Your task to perform on an android device: What's the weather going to be this weekend? Image 0: 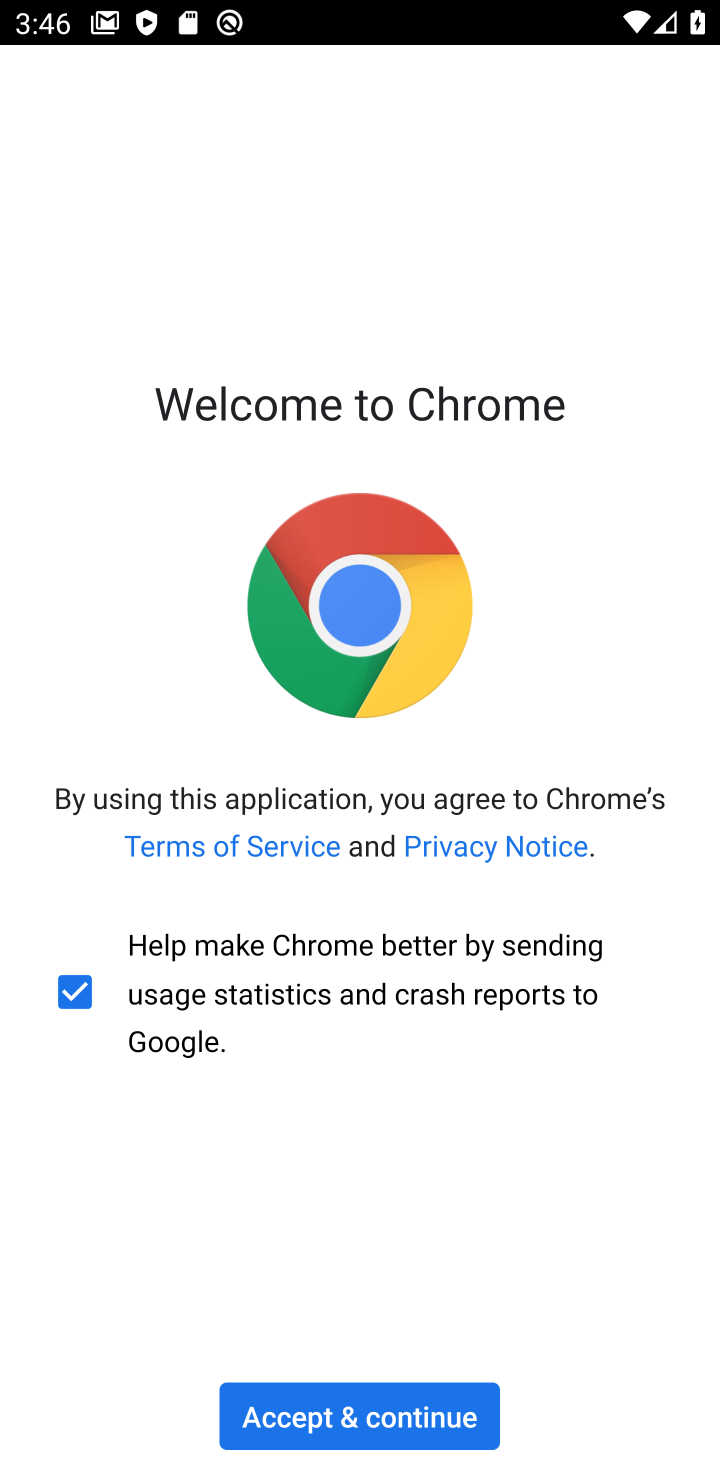
Step 0: press home button
Your task to perform on an android device: What's the weather going to be this weekend? Image 1: 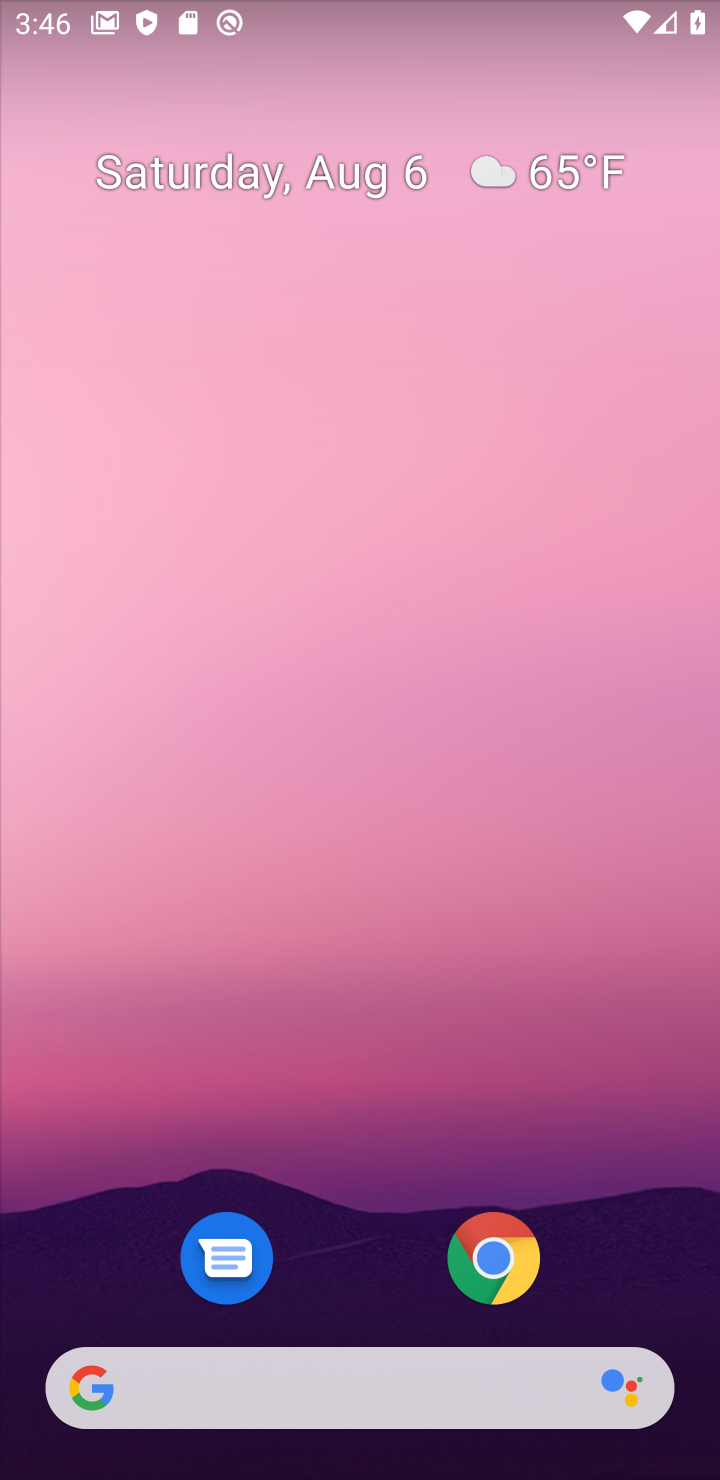
Step 1: drag from (365, 1209) to (497, 54)
Your task to perform on an android device: What's the weather going to be this weekend? Image 2: 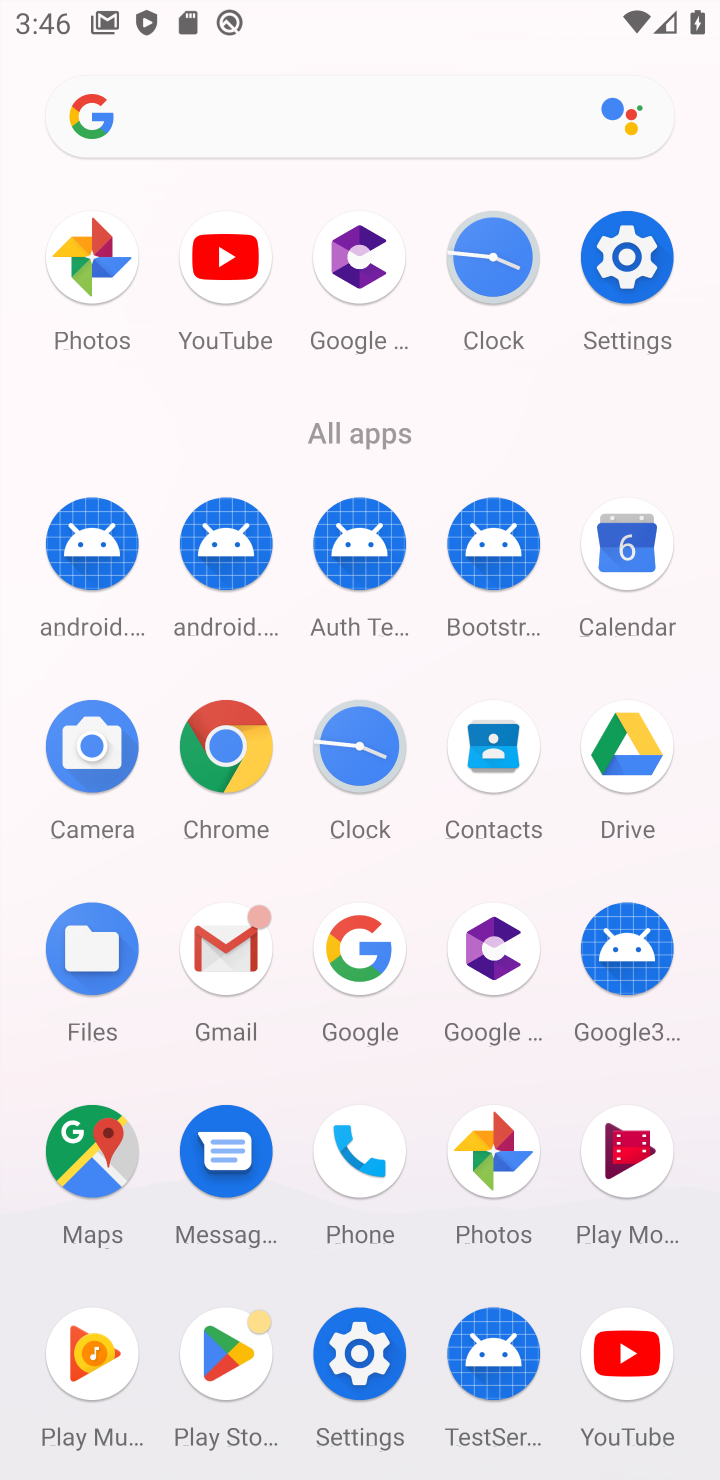
Step 2: click (273, 116)
Your task to perform on an android device: What's the weather going to be this weekend? Image 3: 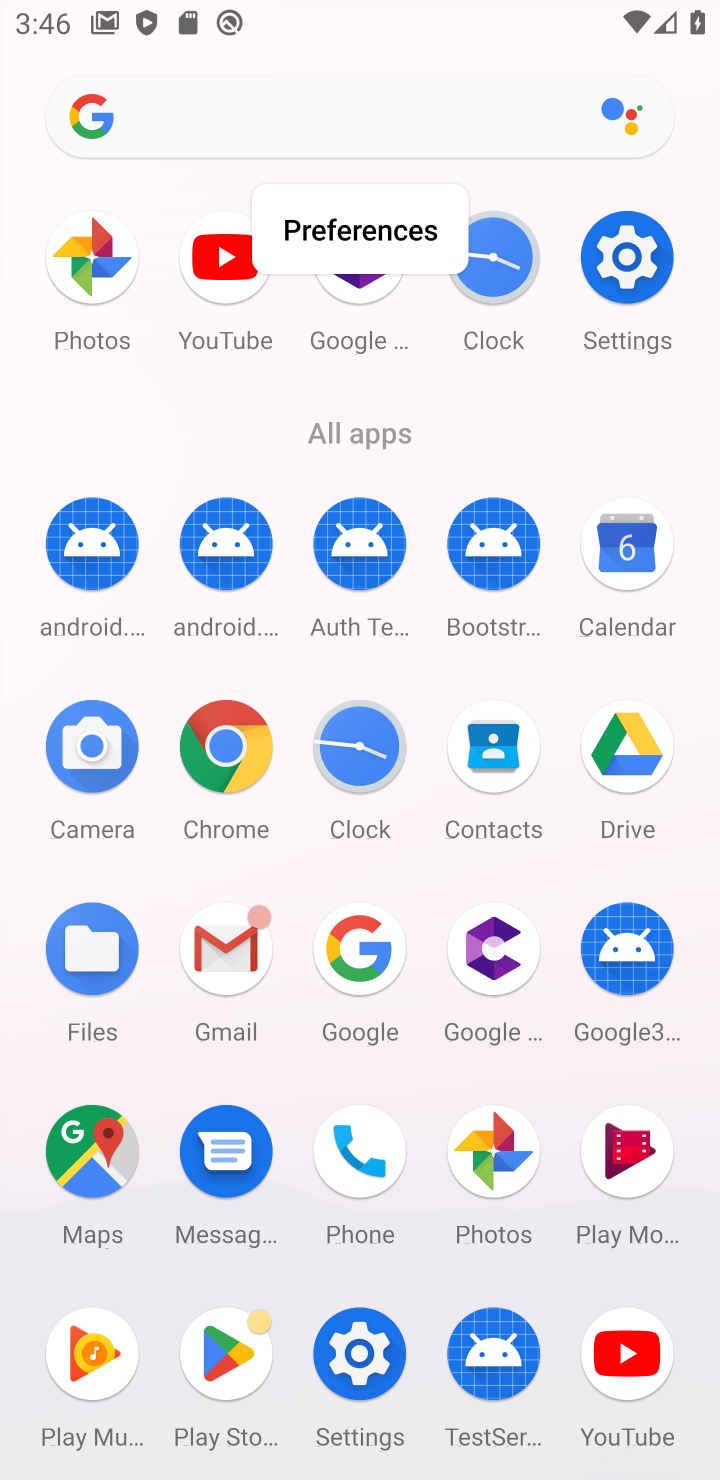
Step 3: click (272, 123)
Your task to perform on an android device: What's the weather going to be this weekend? Image 4: 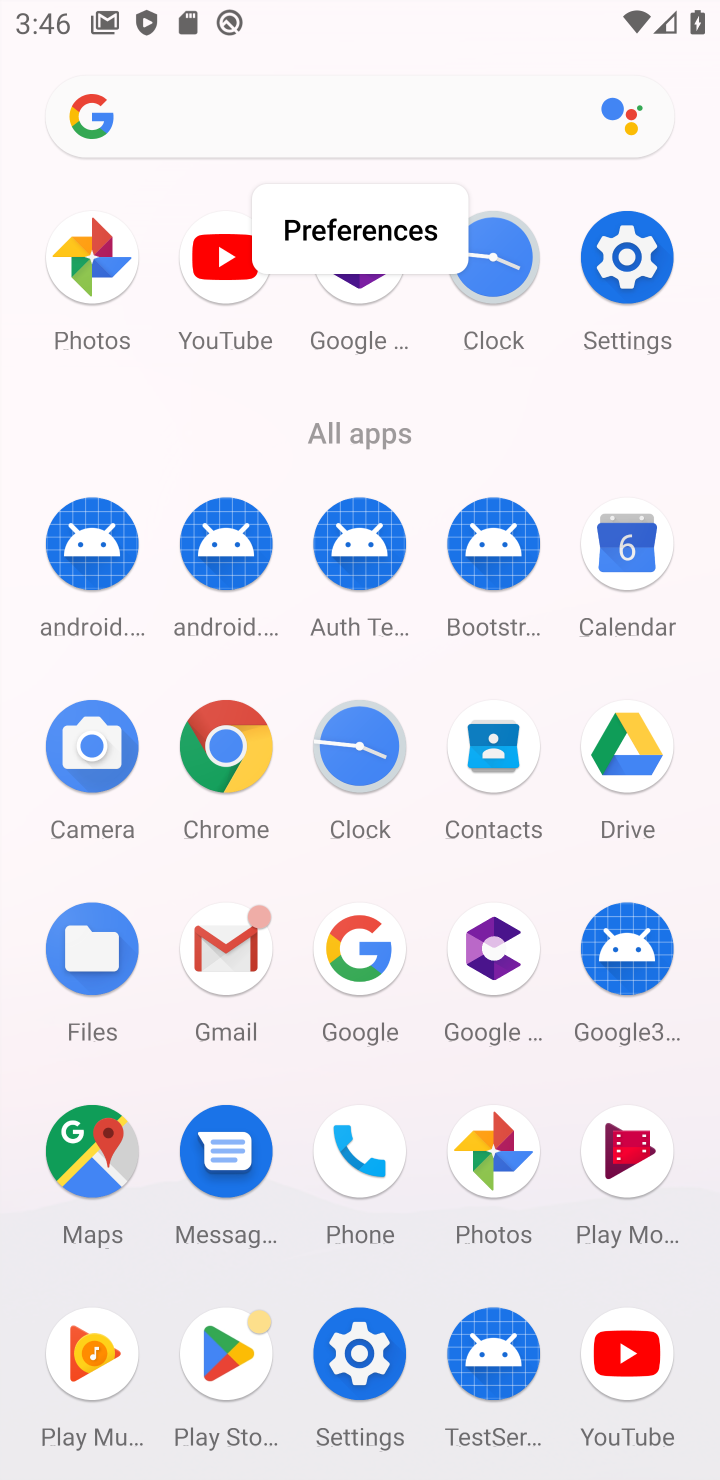
Step 4: click (217, 121)
Your task to perform on an android device: What's the weather going to be this weekend? Image 5: 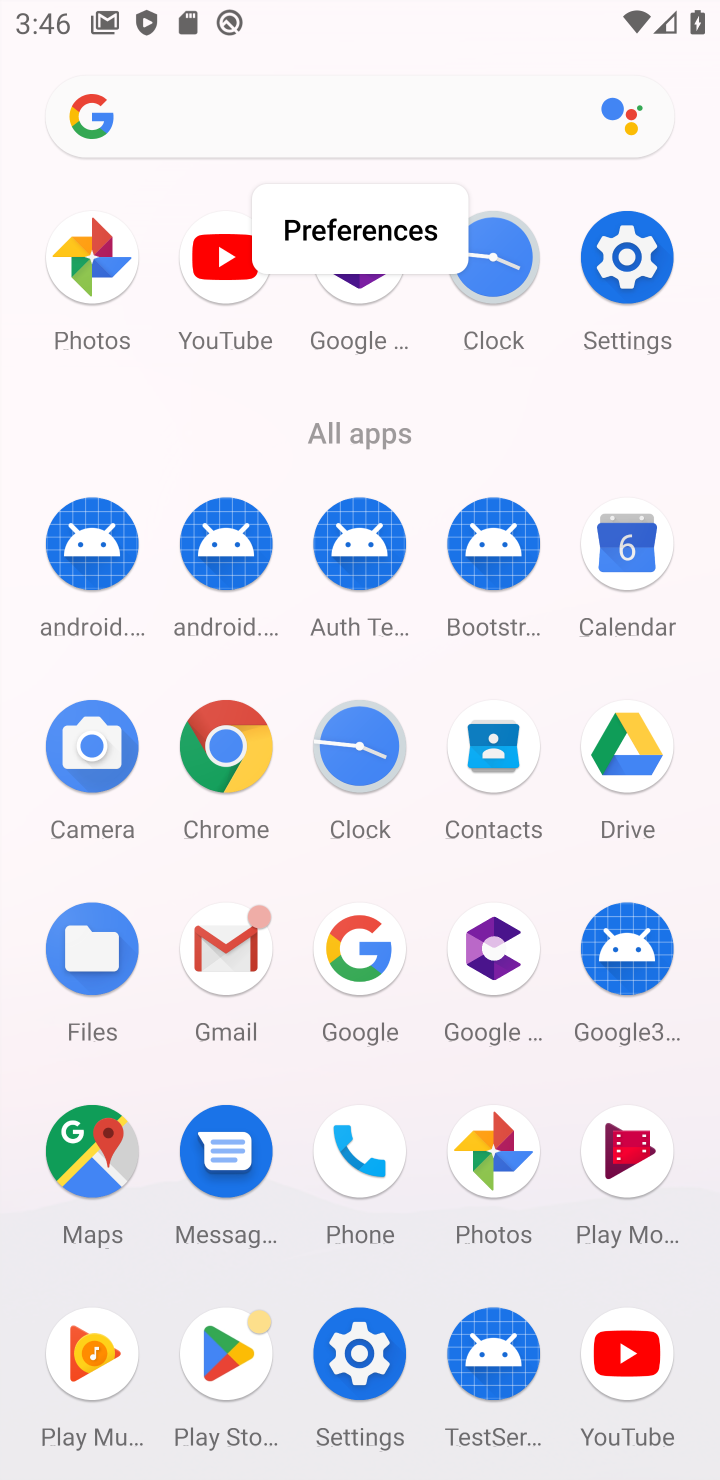
Step 5: click (215, 123)
Your task to perform on an android device: What's the weather going to be this weekend? Image 6: 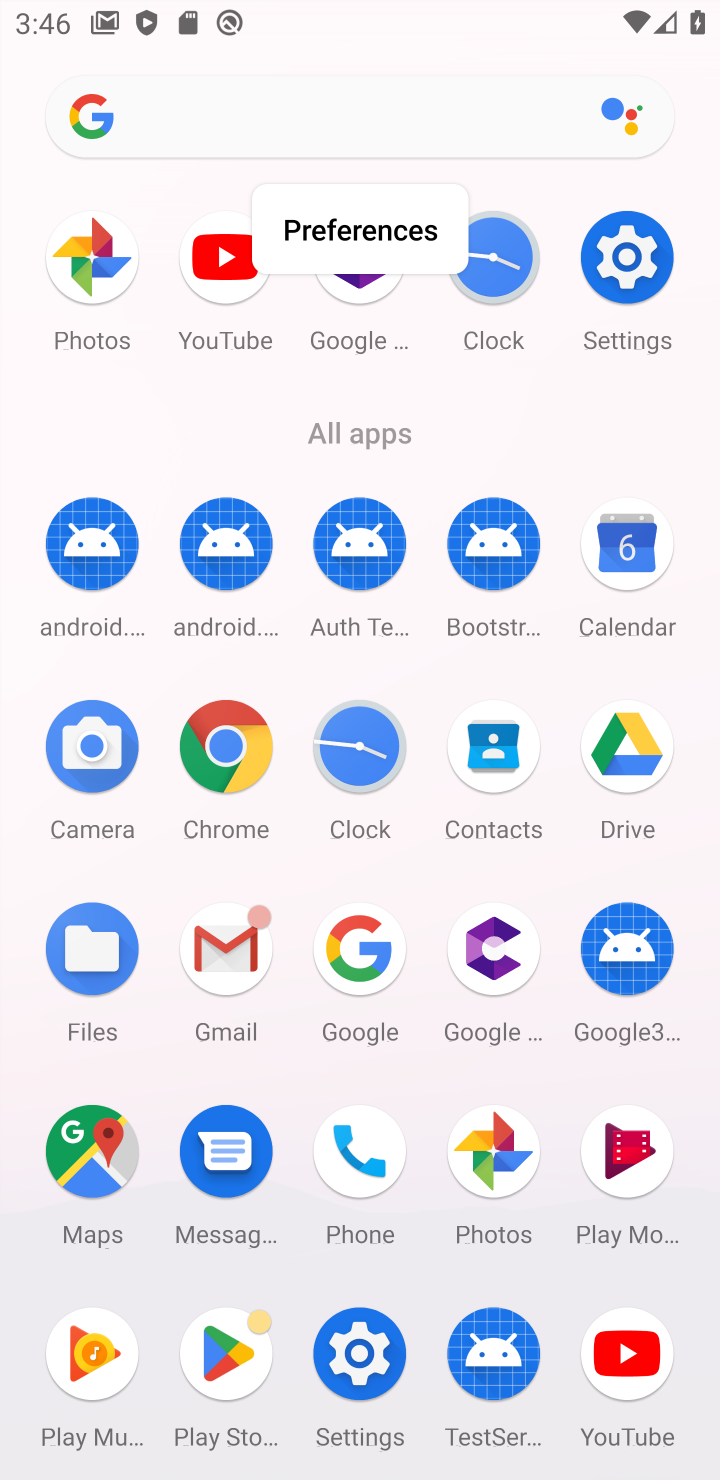
Step 6: click (370, 116)
Your task to perform on an android device: What's the weather going to be this weekend? Image 7: 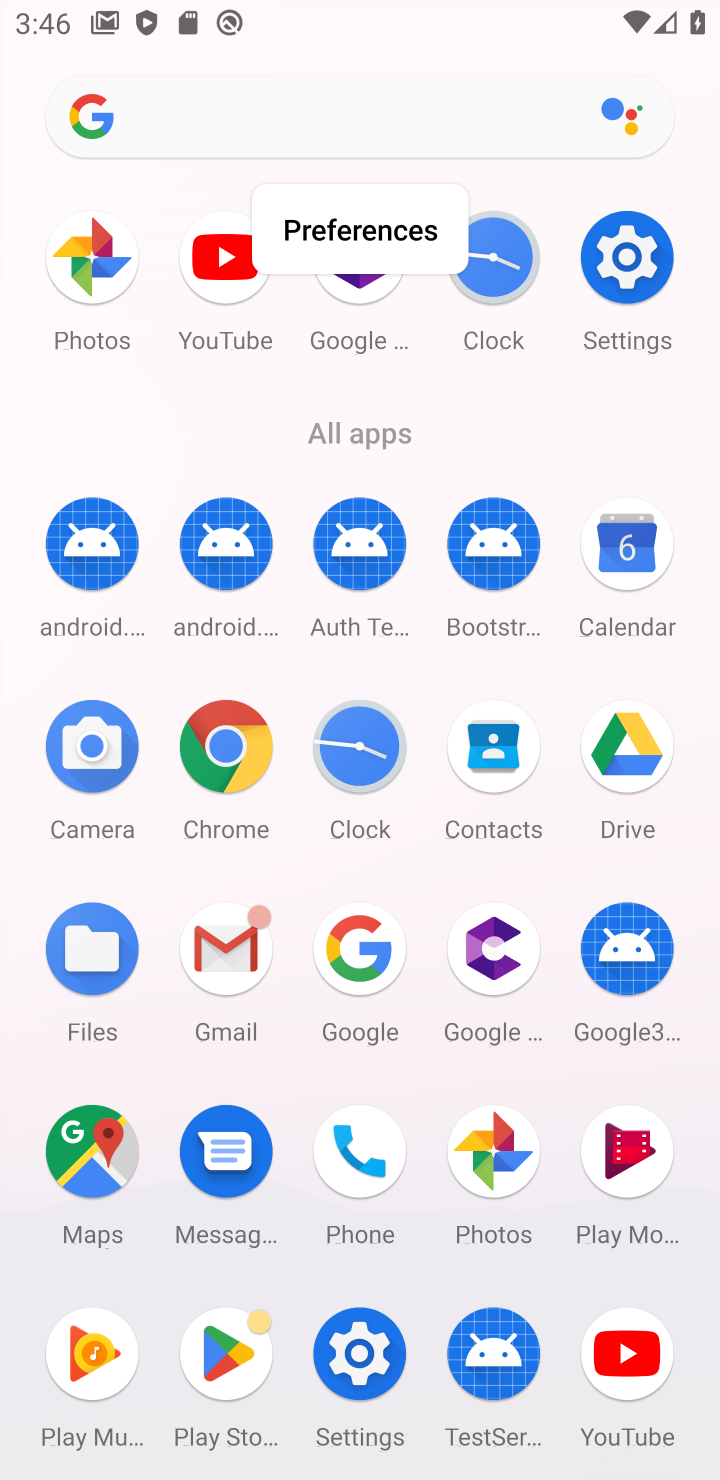
Step 7: click (222, 111)
Your task to perform on an android device: What's the weather going to be this weekend? Image 8: 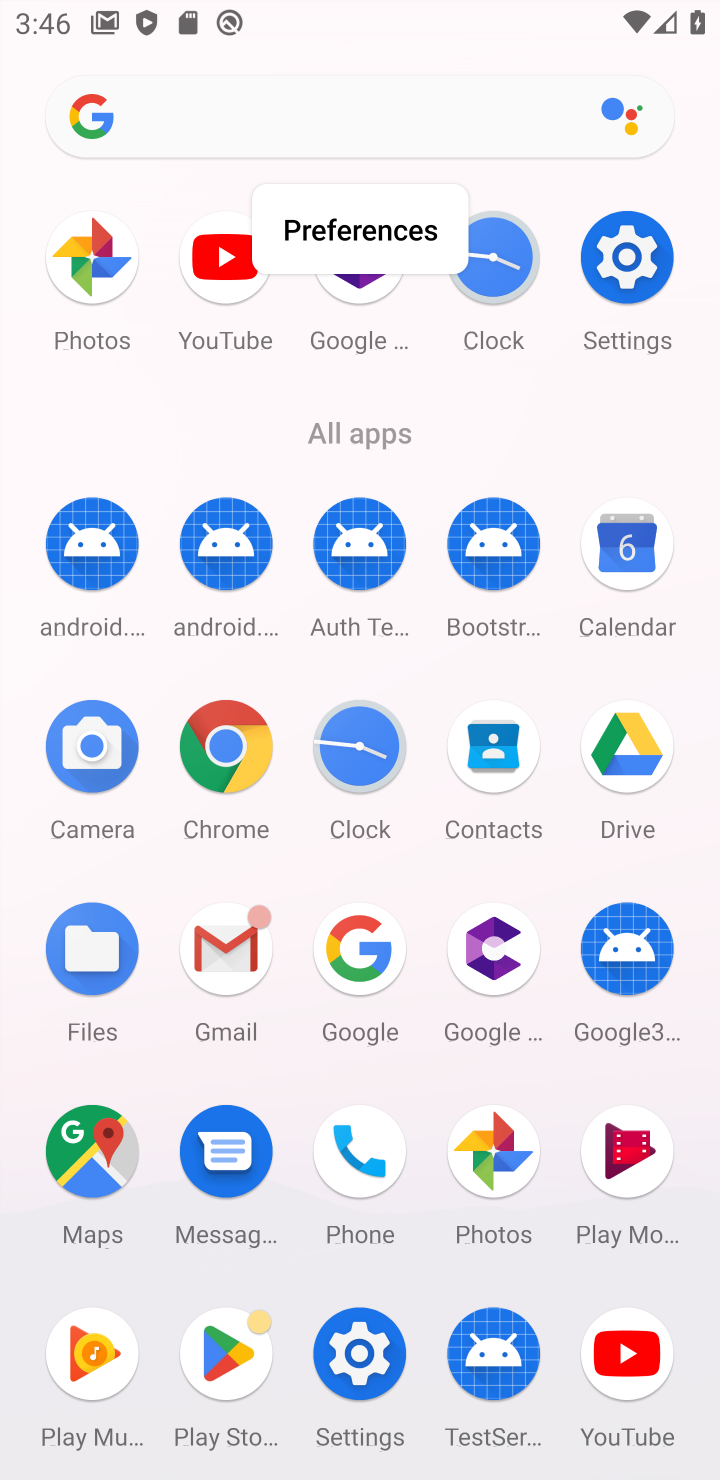
Step 8: click (224, 111)
Your task to perform on an android device: What's the weather going to be this weekend? Image 9: 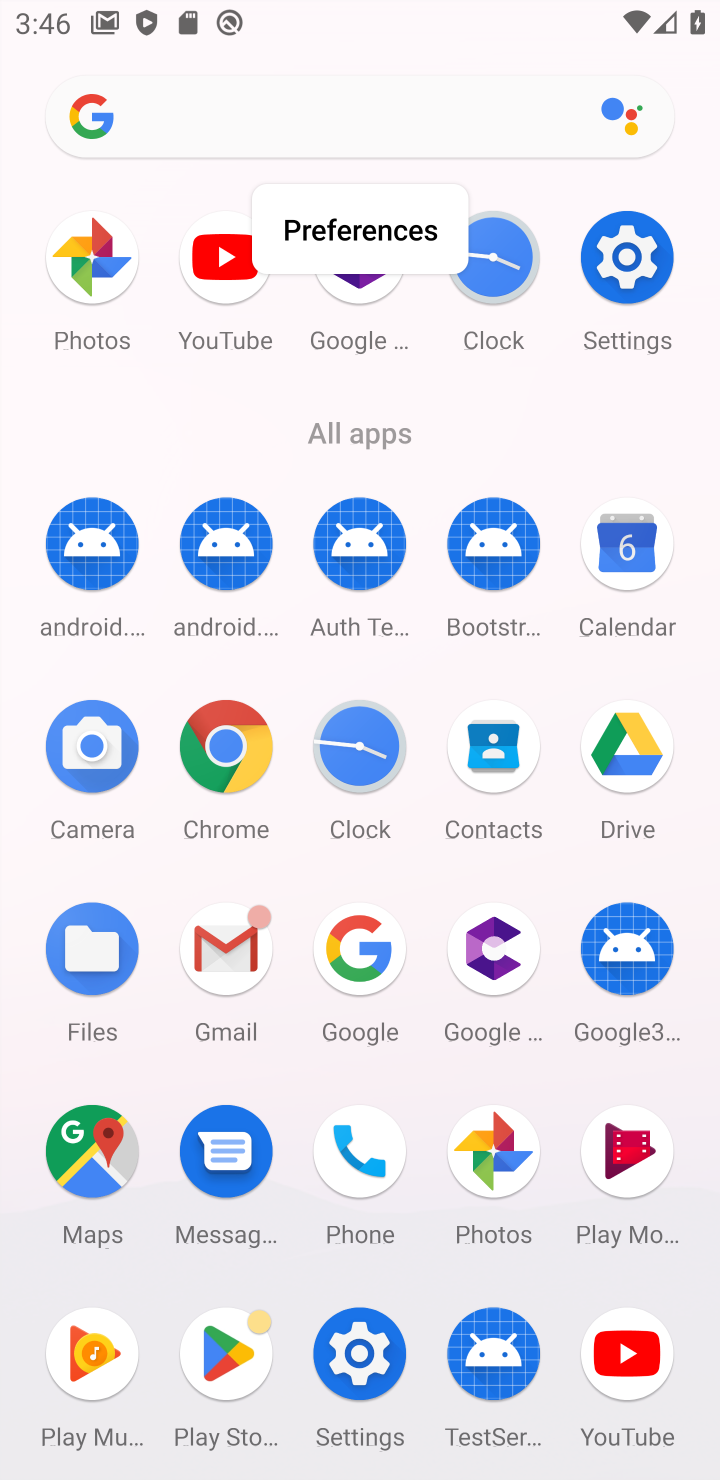
Step 9: click (224, 111)
Your task to perform on an android device: What's the weather going to be this weekend? Image 10: 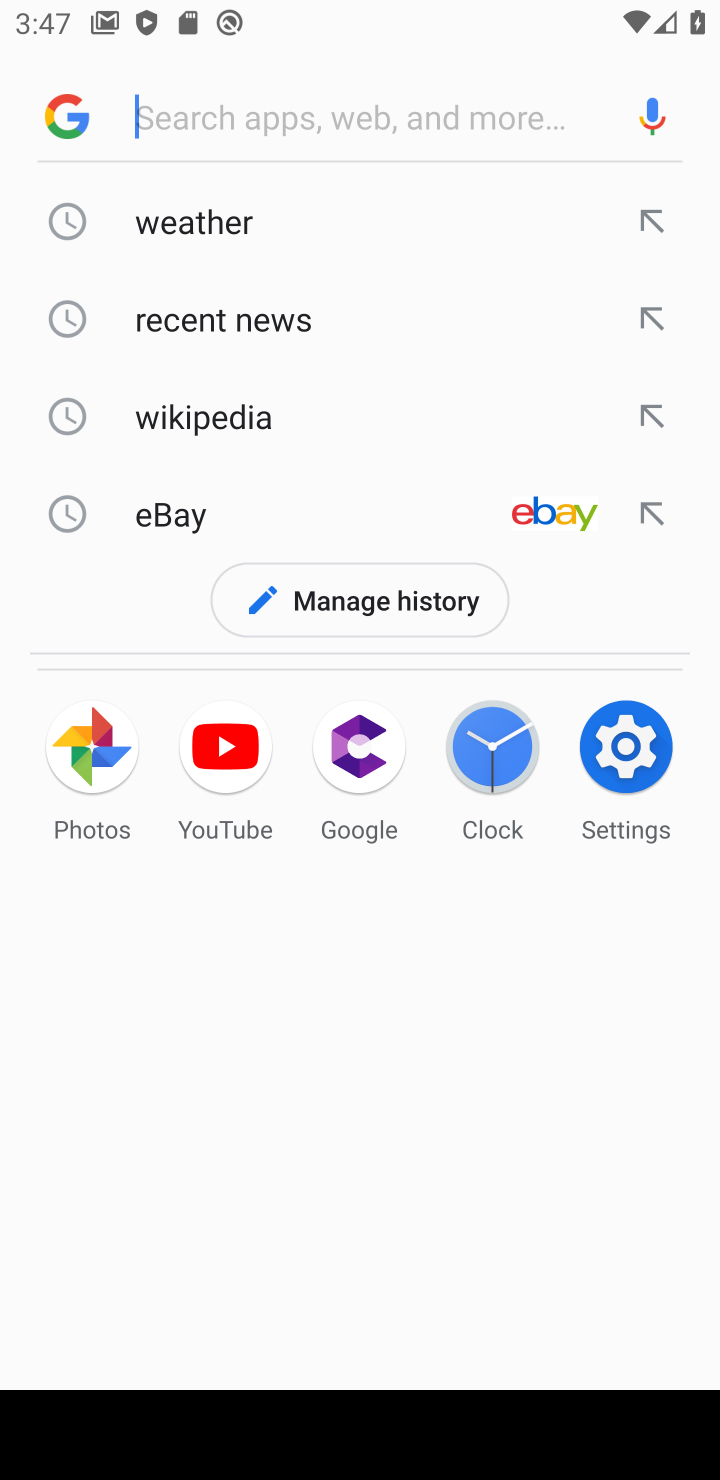
Step 10: click (224, 209)
Your task to perform on an android device: What's the weather going to be this weekend? Image 11: 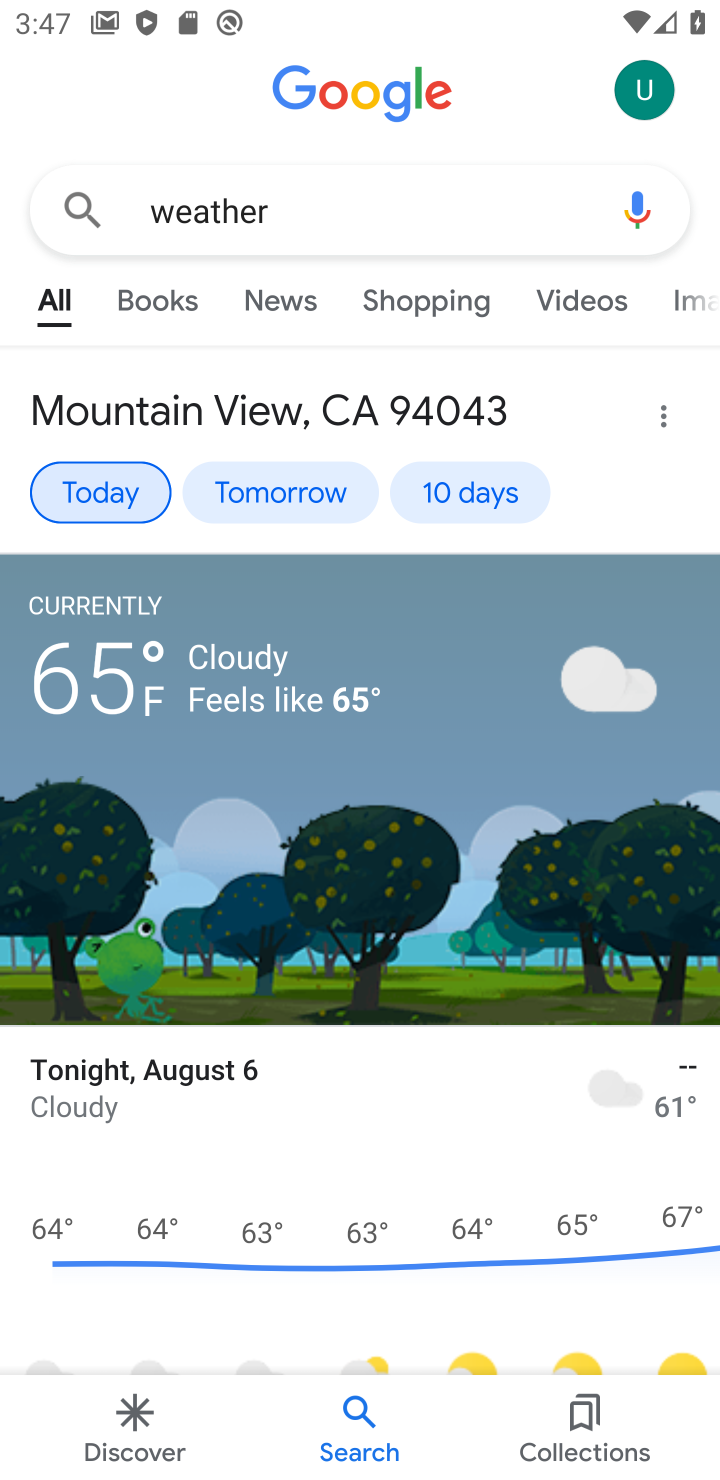
Step 11: click (485, 482)
Your task to perform on an android device: What's the weather going to be this weekend? Image 12: 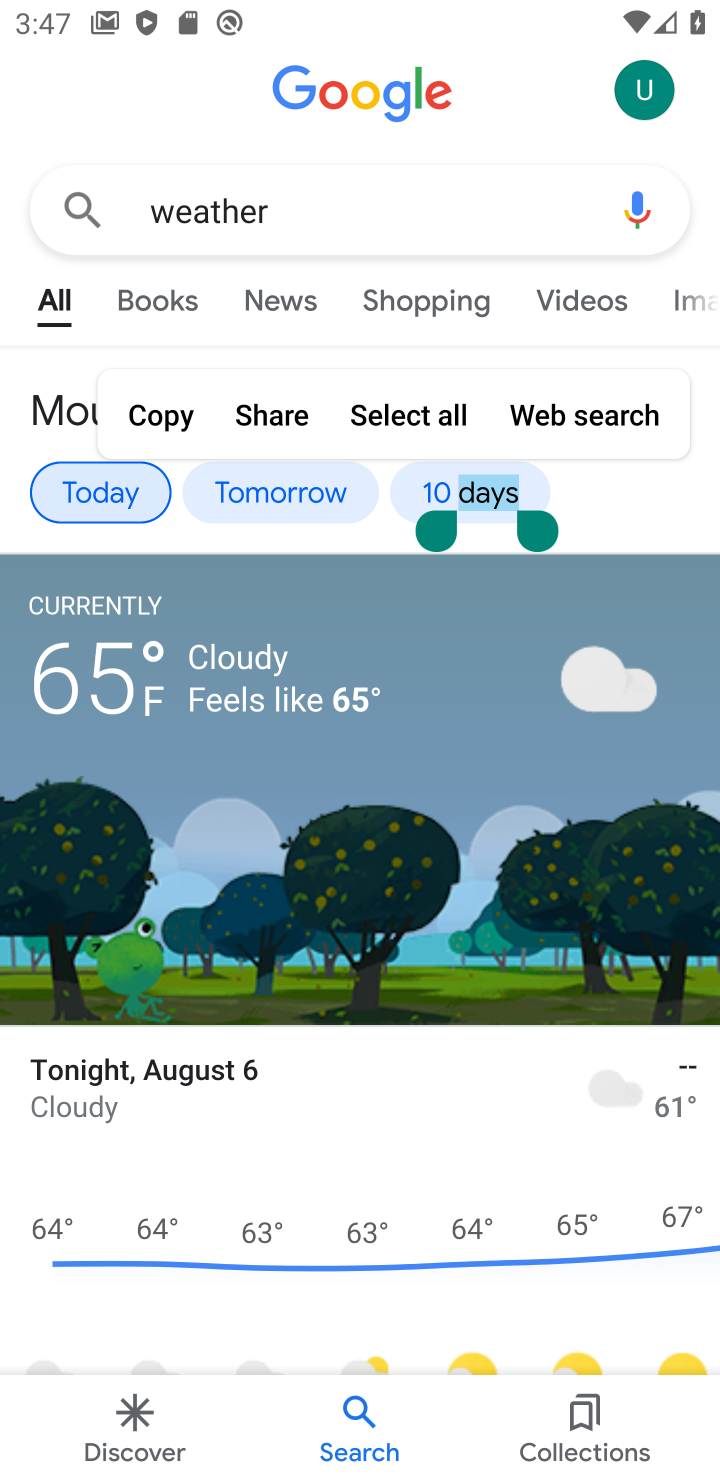
Step 12: click (432, 487)
Your task to perform on an android device: What's the weather going to be this weekend? Image 13: 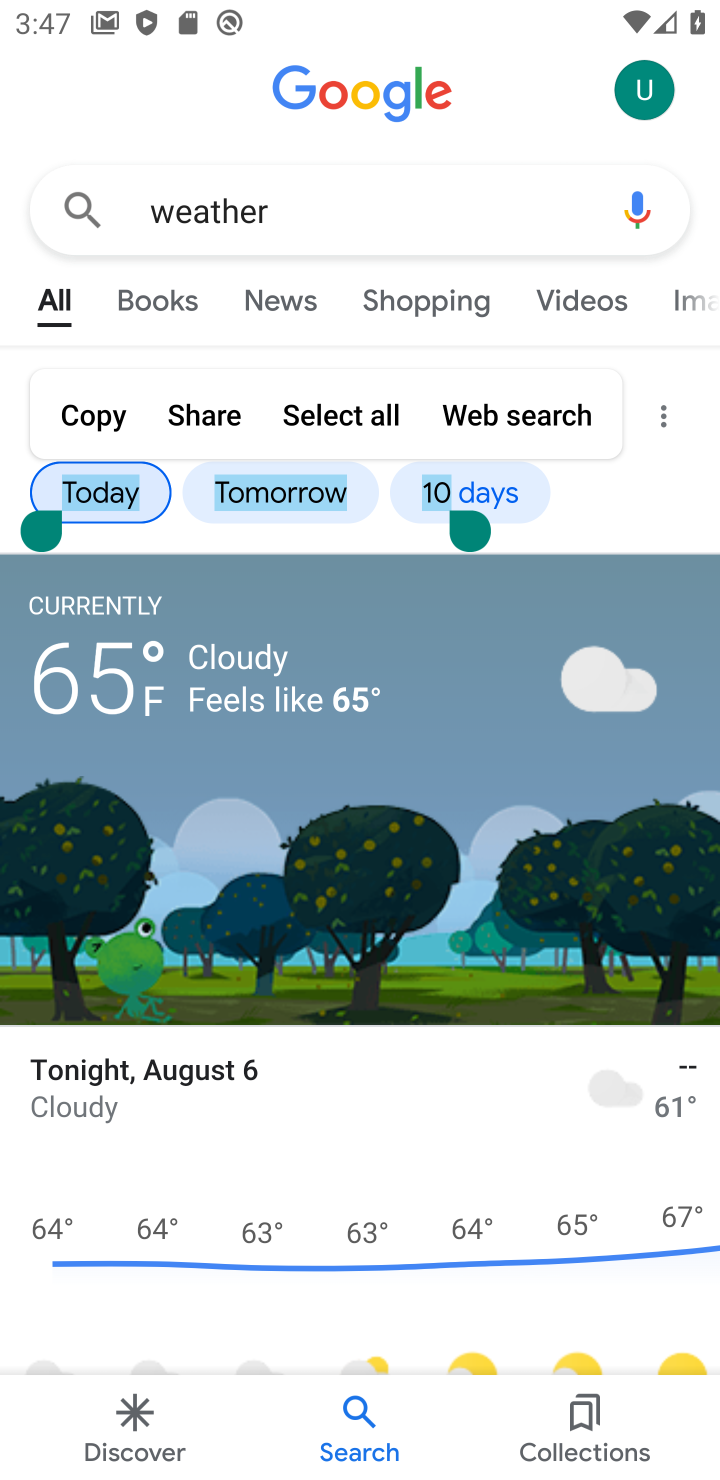
Step 13: click (522, 500)
Your task to perform on an android device: What's the weather going to be this weekend? Image 14: 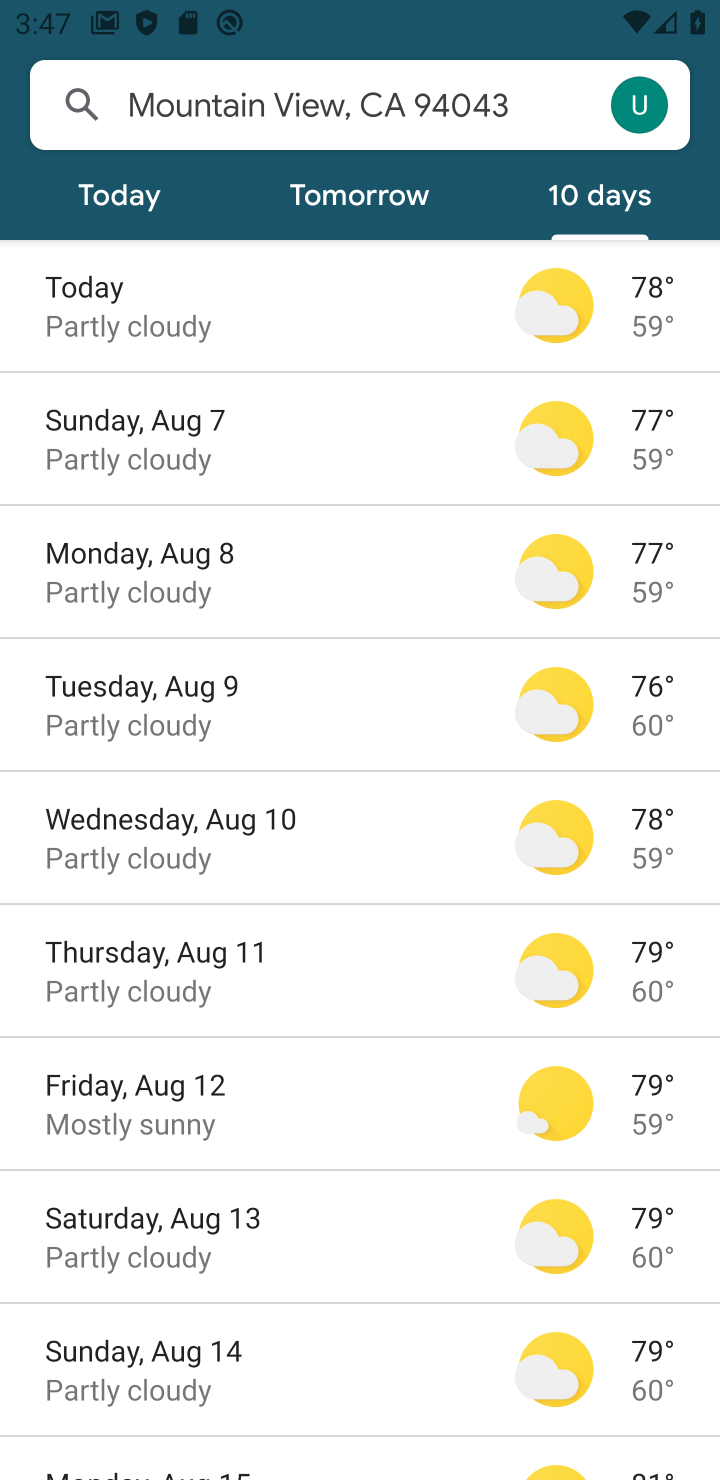
Step 14: task complete